Your task to perform on an android device: Search for Italian restaurants on Maps Image 0: 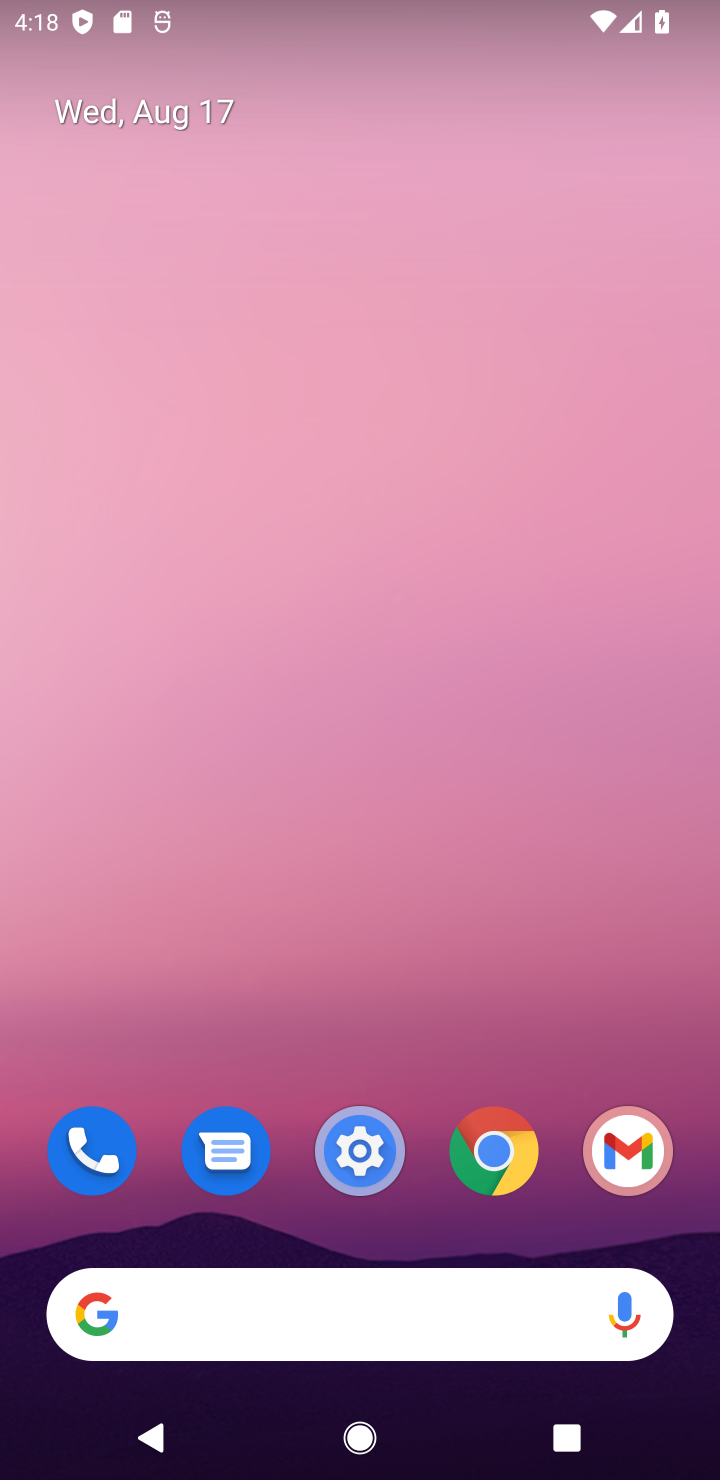
Step 0: drag from (430, 1220) to (240, 60)
Your task to perform on an android device: Search for Italian restaurants on Maps Image 1: 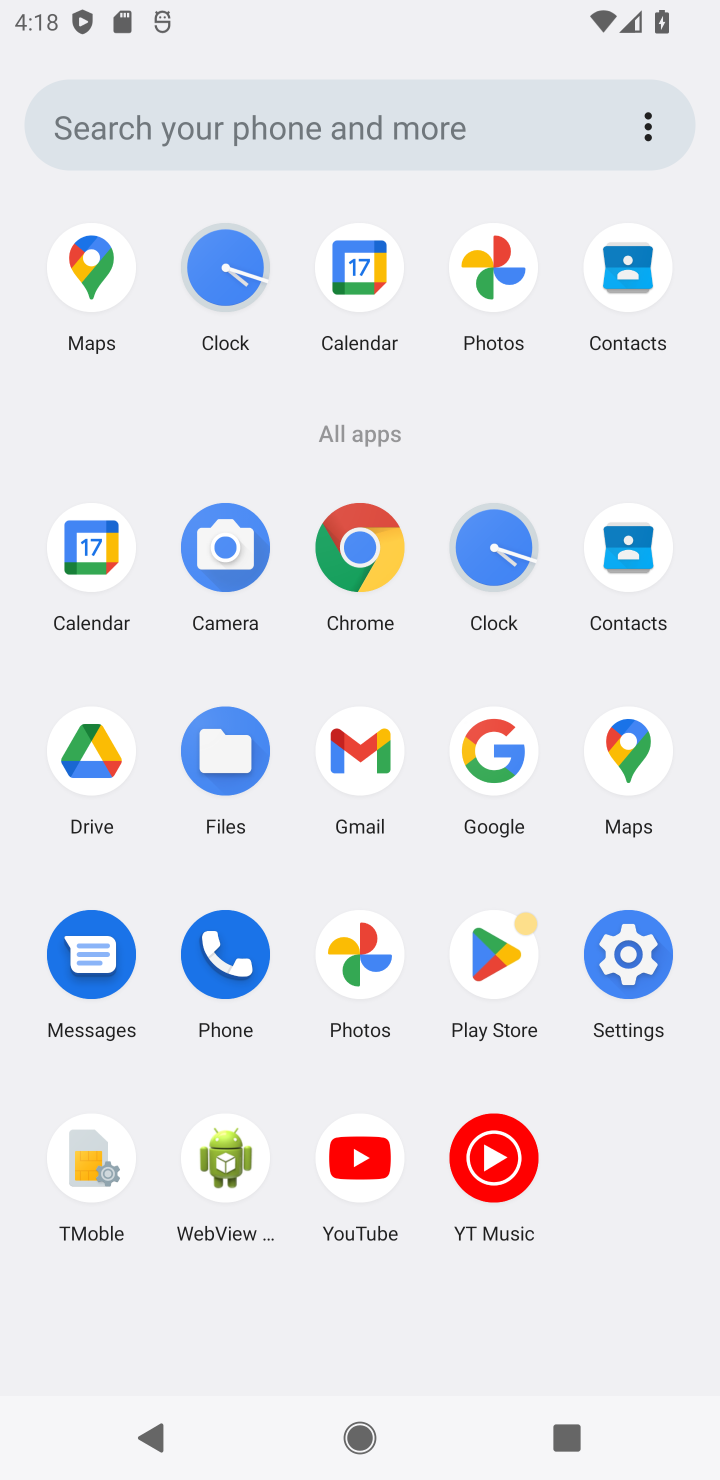
Step 1: click (116, 322)
Your task to perform on an android device: Search for Italian restaurants on Maps Image 2: 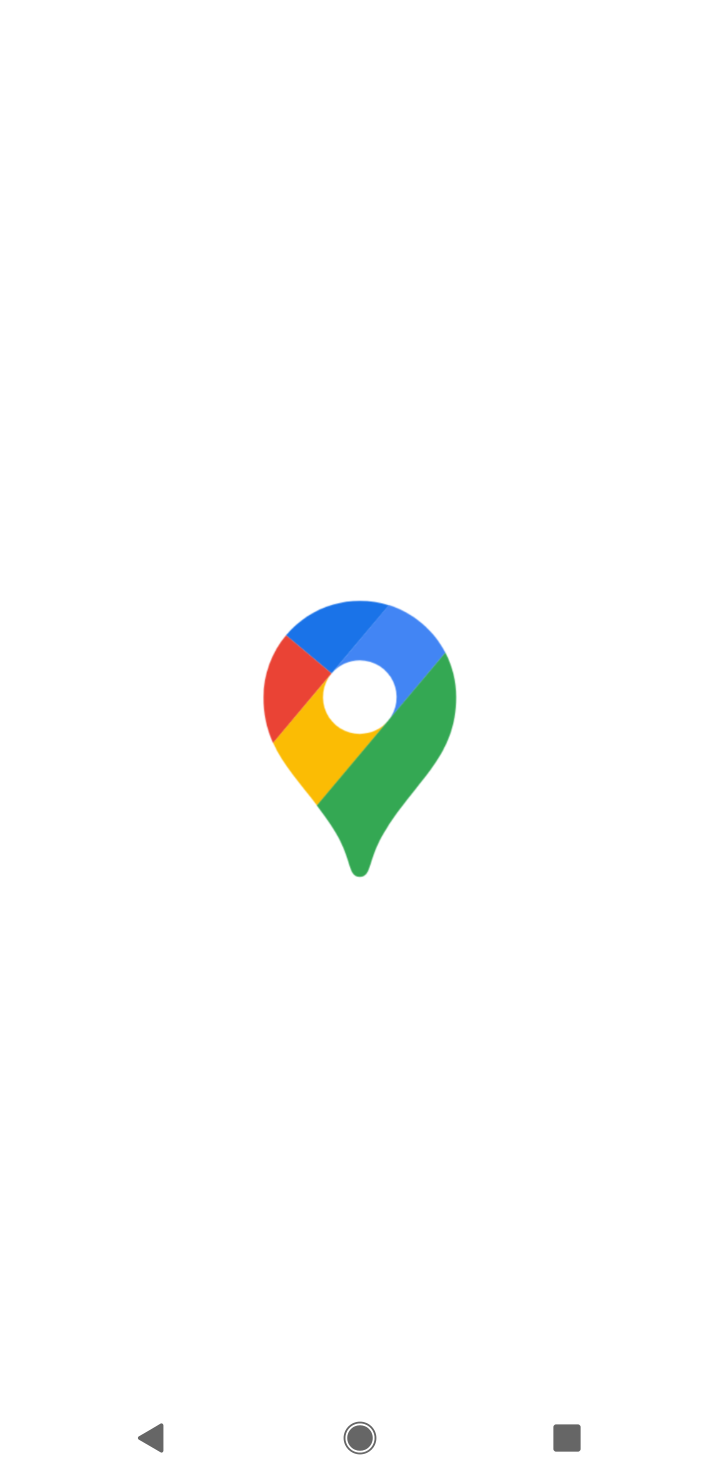
Step 2: task complete